Your task to perform on an android device: toggle location history Image 0: 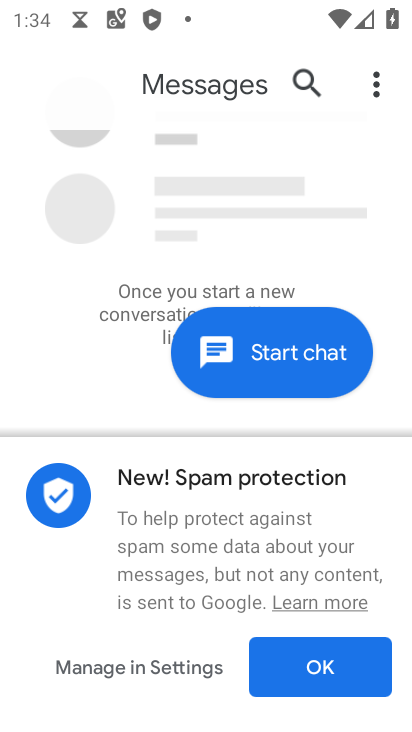
Step 0: press home button
Your task to perform on an android device: toggle location history Image 1: 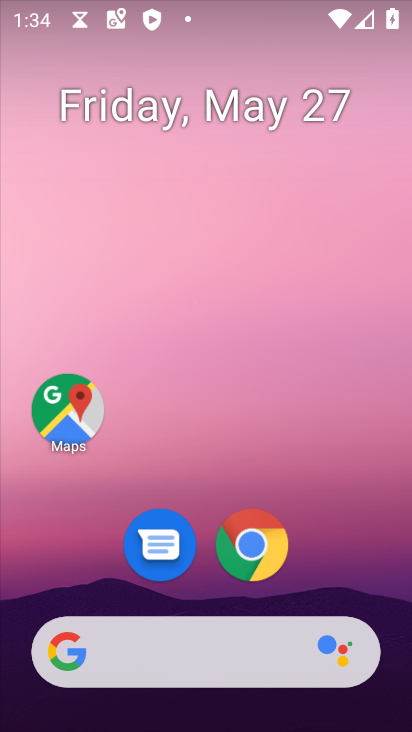
Step 1: drag from (351, 579) to (209, 32)
Your task to perform on an android device: toggle location history Image 2: 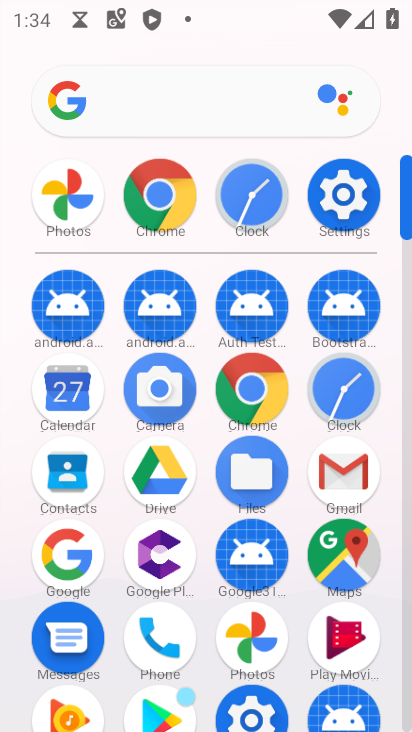
Step 2: click (332, 203)
Your task to perform on an android device: toggle location history Image 3: 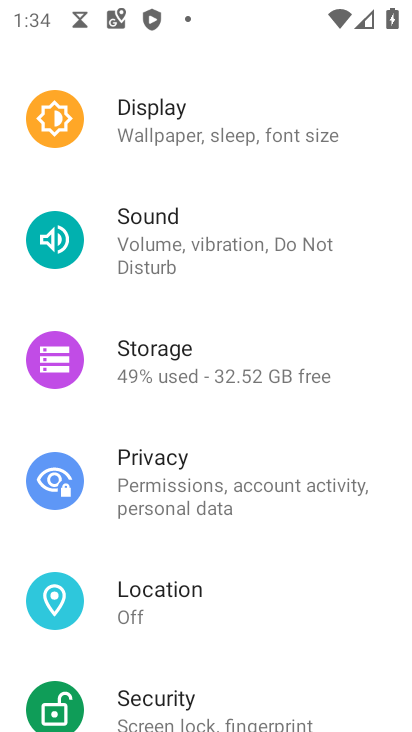
Step 3: click (233, 575)
Your task to perform on an android device: toggle location history Image 4: 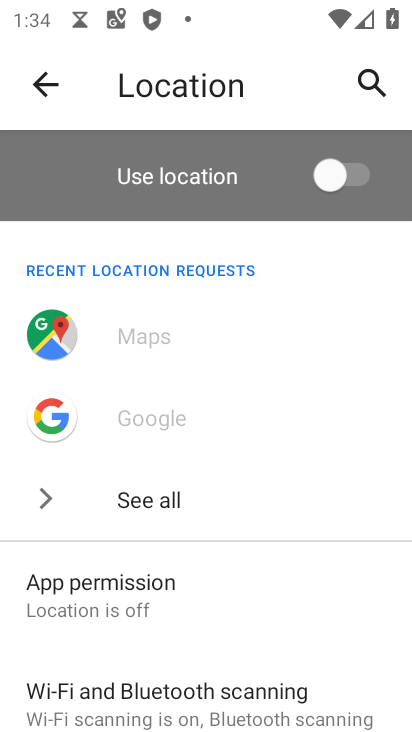
Step 4: drag from (260, 479) to (232, 87)
Your task to perform on an android device: toggle location history Image 5: 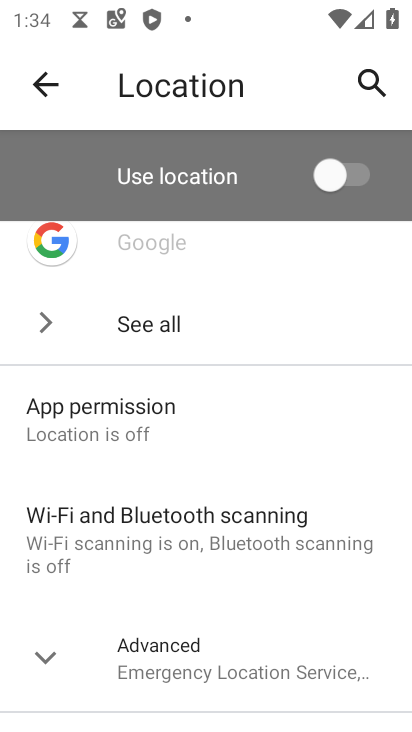
Step 5: click (257, 648)
Your task to perform on an android device: toggle location history Image 6: 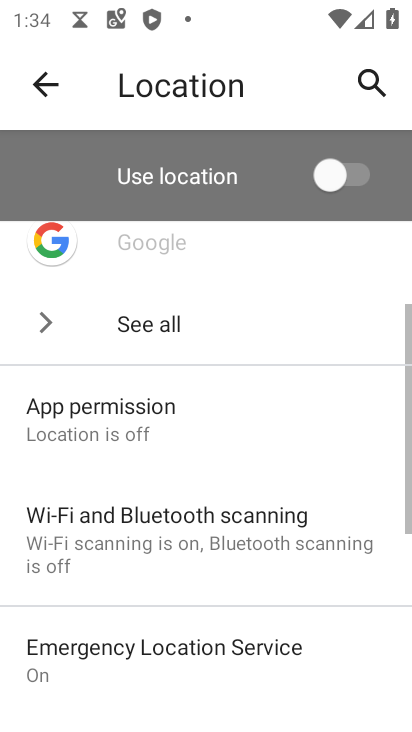
Step 6: drag from (298, 671) to (226, 130)
Your task to perform on an android device: toggle location history Image 7: 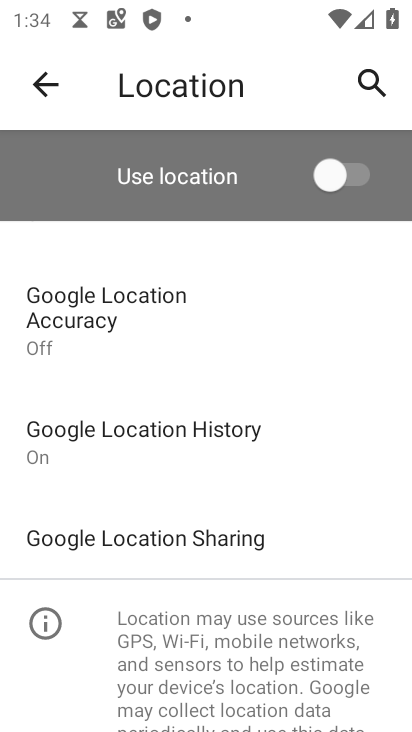
Step 7: click (232, 414)
Your task to perform on an android device: toggle location history Image 8: 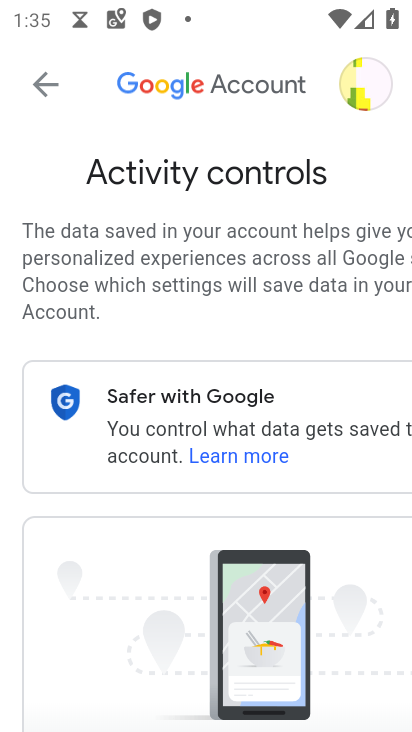
Step 8: drag from (159, 519) to (179, 13)
Your task to perform on an android device: toggle location history Image 9: 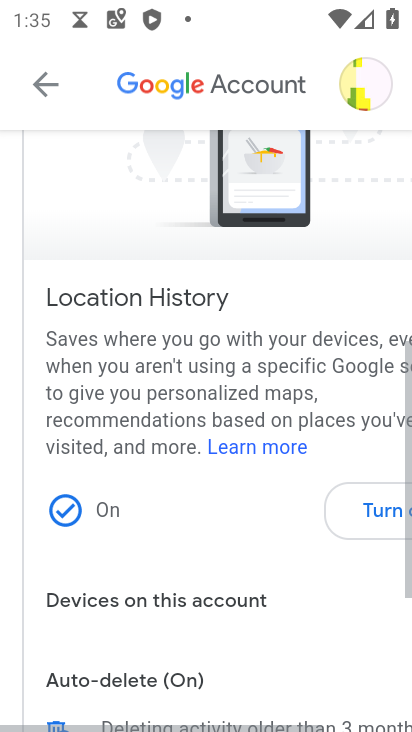
Step 9: drag from (185, 531) to (214, 74)
Your task to perform on an android device: toggle location history Image 10: 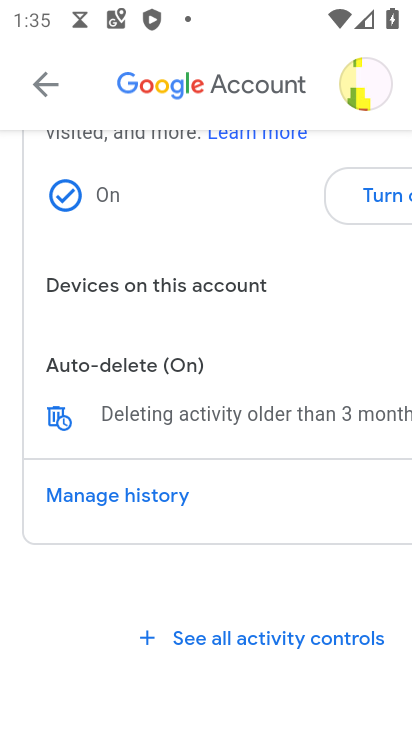
Step 10: click (358, 190)
Your task to perform on an android device: toggle location history Image 11: 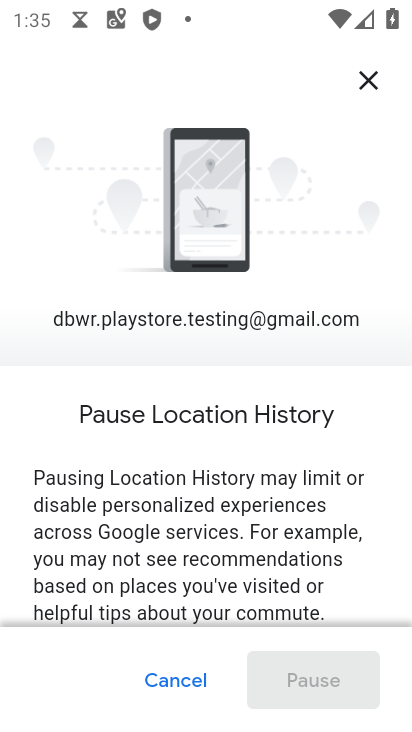
Step 11: drag from (188, 491) to (205, 26)
Your task to perform on an android device: toggle location history Image 12: 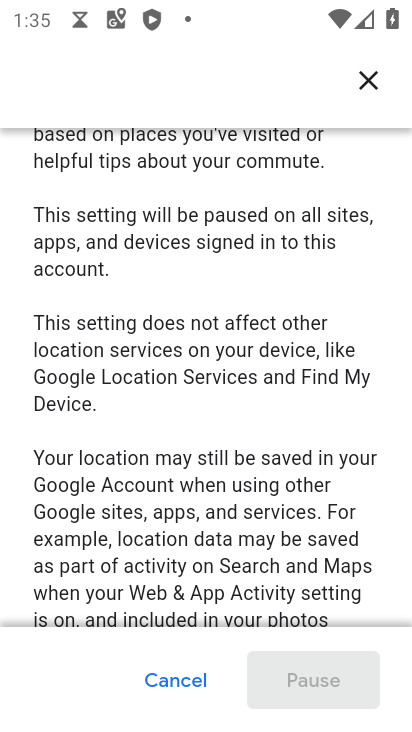
Step 12: drag from (253, 510) to (216, 12)
Your task to perform on an android device: toggle location history Image 13: 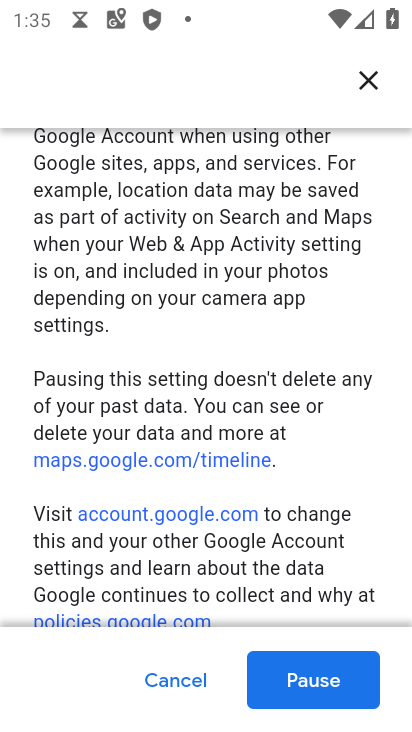
Step 13: click (310, 675)
Your task to perform on an android device: toggle location history Image 14: 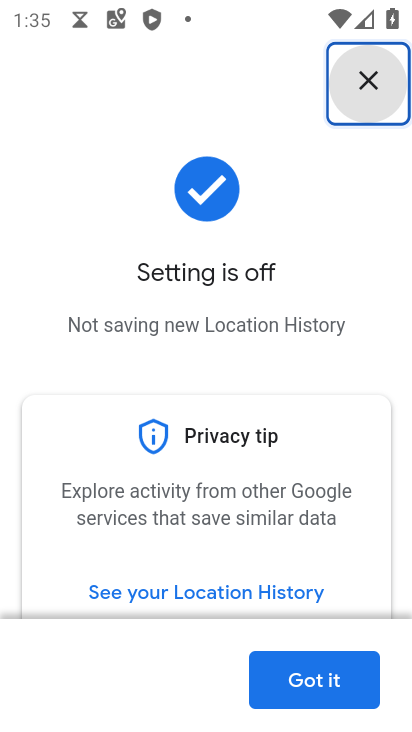
Step 14: click (340, 680)
Your task to perform on an android device: toggle location history Image 15: 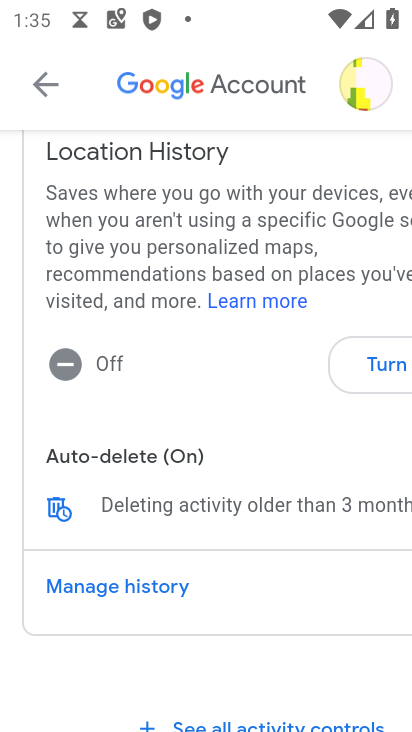
Step 15: task complete